Your task to perform on an android device: toggle show notifications on the lock screen Image 0: 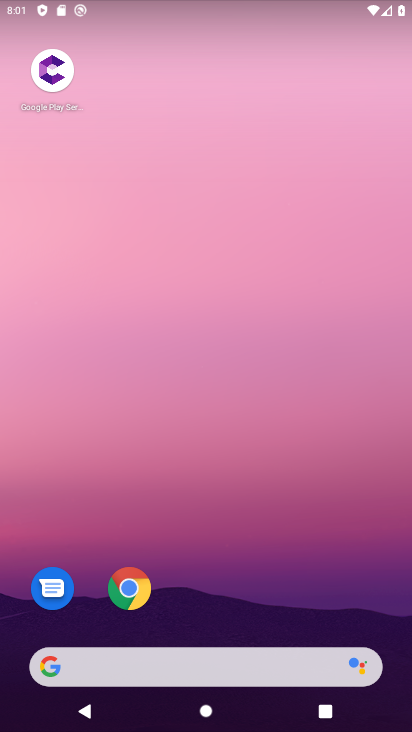
Step 0: drag from (184, 634) to (287, 81)
Your task to perform on an android device: toggle show notifications on the lock screen Image 1: 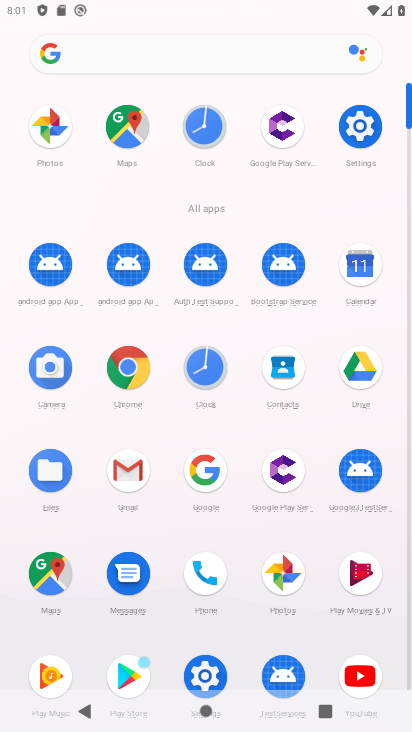
Step 1: click (370, 122)
Your task to perform on an android device: toggle show notifications on the lock screen Image 2: 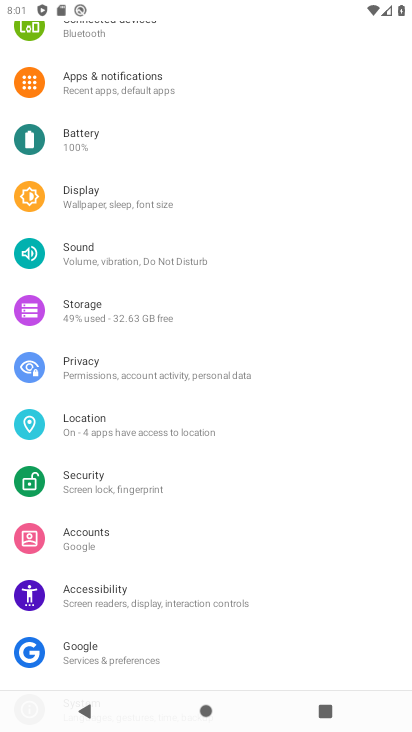
Step 2: click (184, 90)
Your task to perform on an android device: toggle show notifications on the lock screen Image 3: 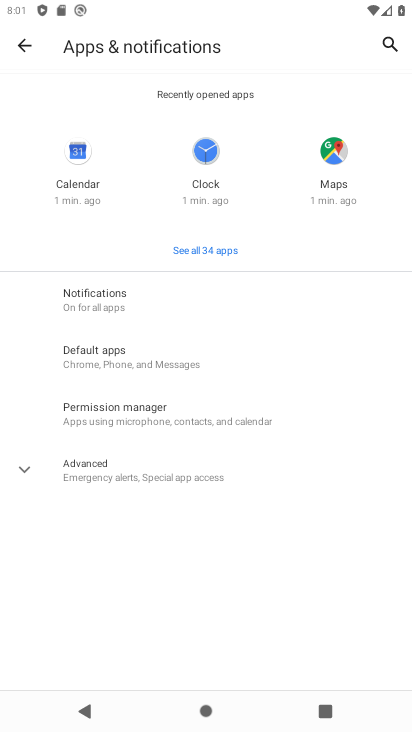
Step 3: click (209, 297)
Your task to perform on an android device: toggle show notifications on the lock screen Image 4: 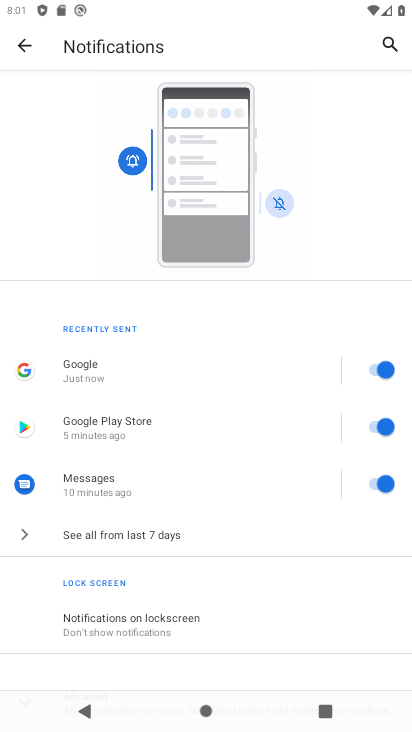
Step 4: drag from (158, 613) to (204, 323)
Your task to perform on an android device: toggle show notifications on the lock screen Image 5: 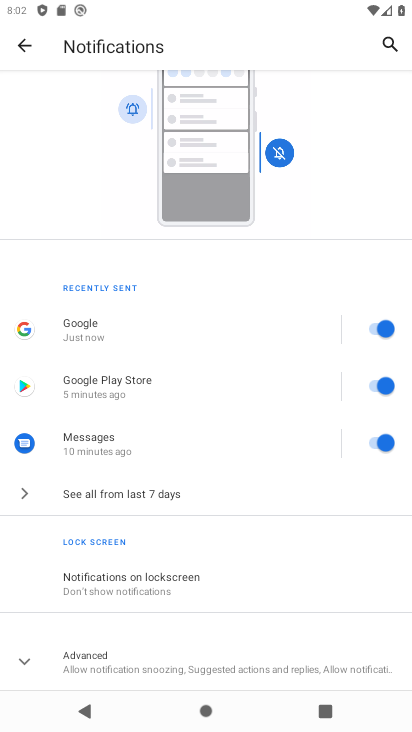
Step 5: click (215, 582)
Your task to perform on an android device: toggle show notifications on the lock screen Image 6: 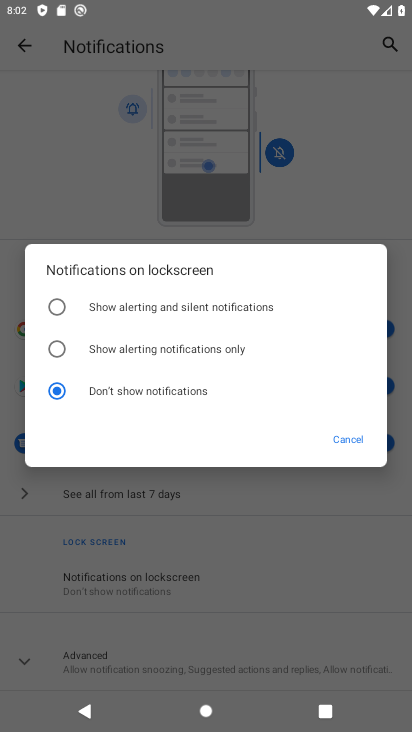
Step 6: click (205, 307)
Your task to perform on an android device: toggle show notifications on the lock screen Image 7: 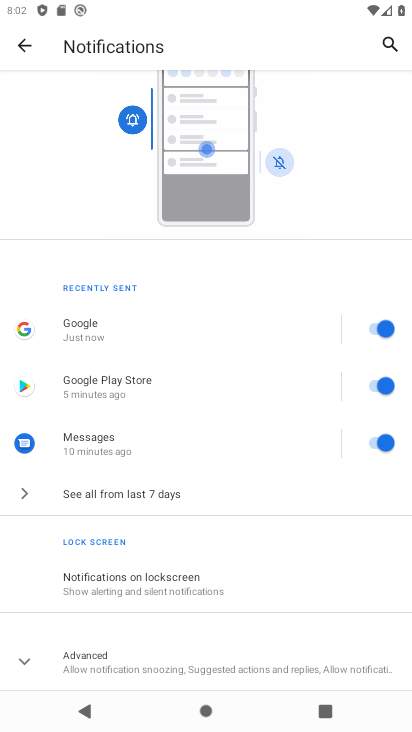
Step 7: task complete